Your task to perform on an android device: Search for Mexican restaurants on Maps Image 0: 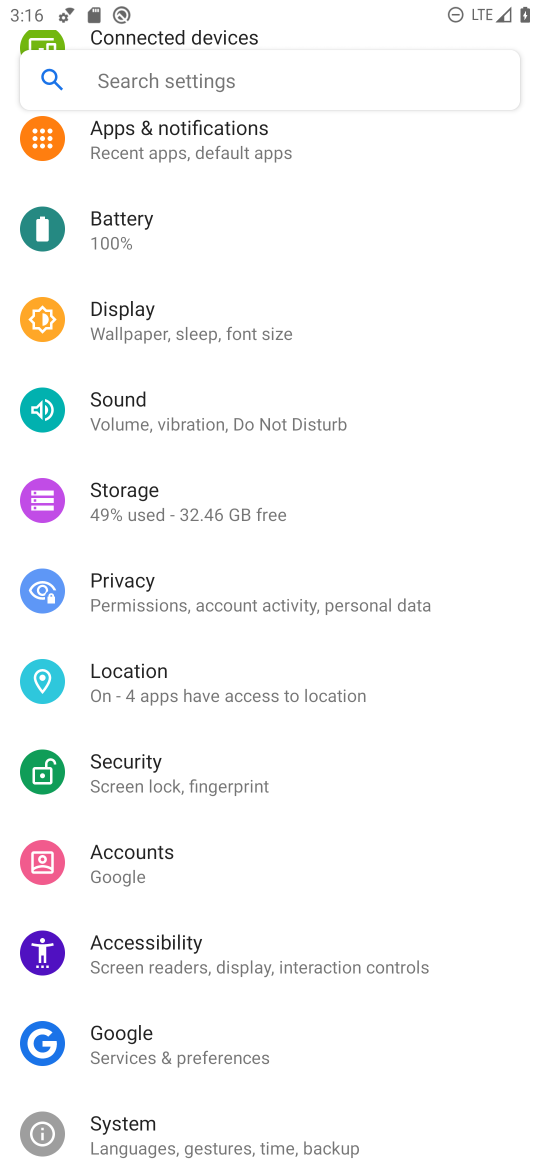
Step 0: press home button
Your task to perform on an android device: Search for Mexican restaurants on Maps Image 1: 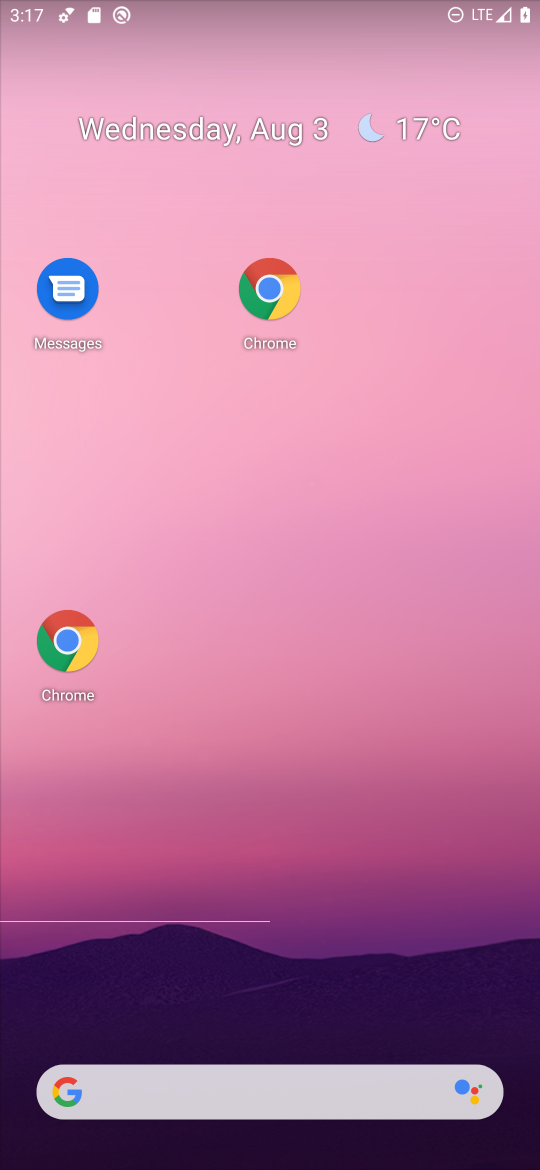
Step 1: drag from (332, 1050) to (316, 252)
Your task to perform on an android device: Search for Mexican restaurants on Maps Image 2: 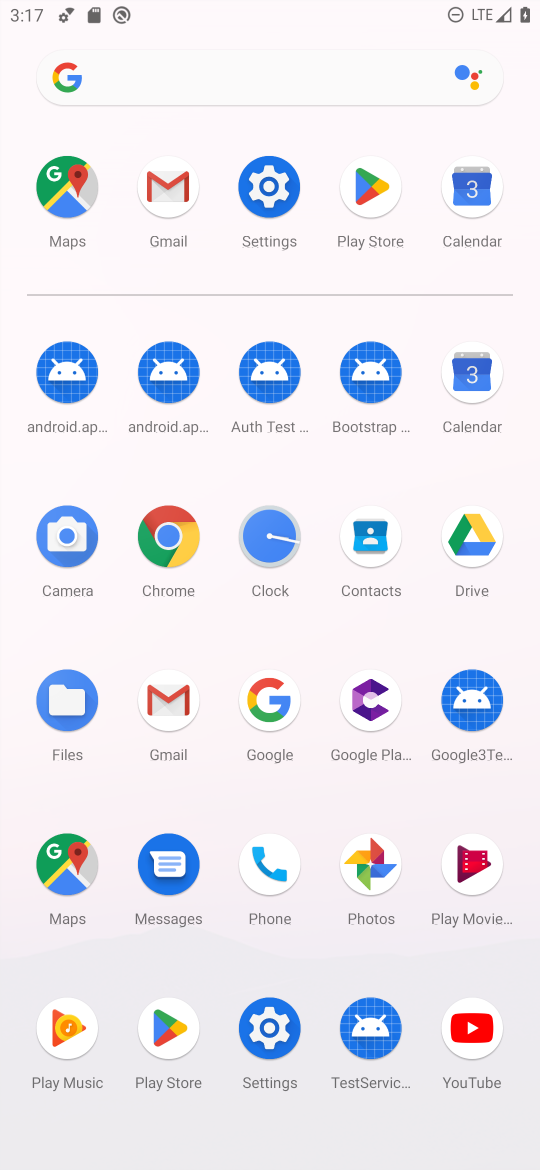
Step 2: click (54, 217)
Your task to perform on an android device: Search for Mexican restaurants on Maps Image 3: 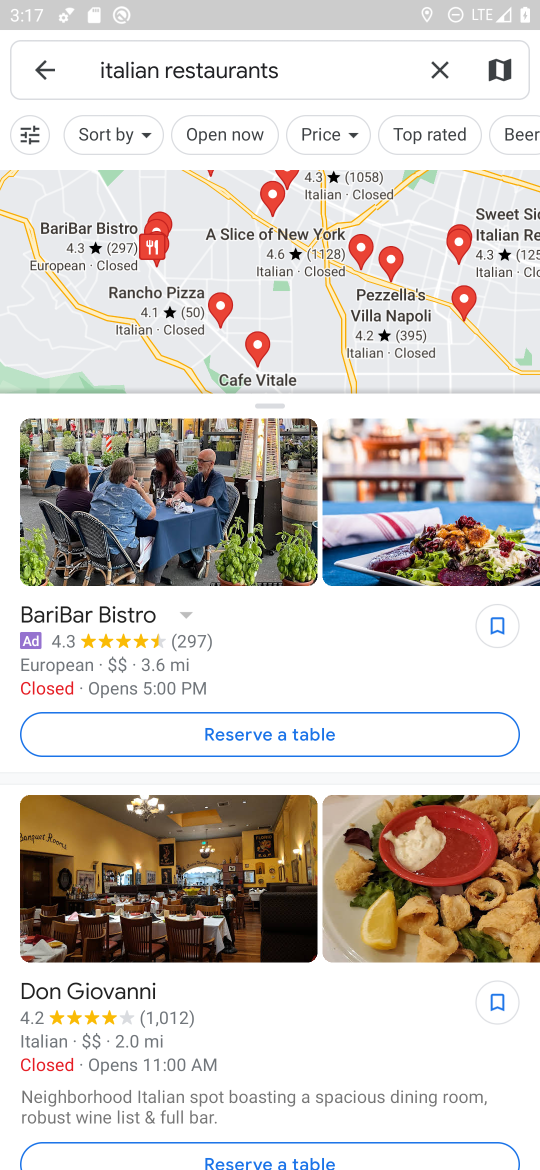
Step 3: click (427, 76)
Your task to perform on an android device: Search for Mexican restaurants on Maps Image 4: 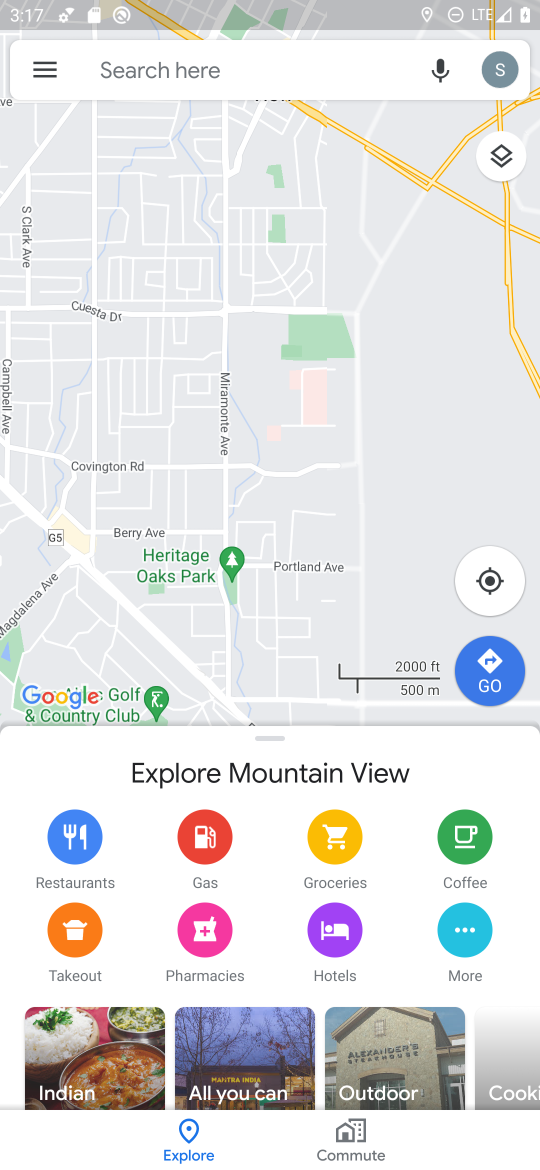
Step 4: click (313, 76)
Your task to perform on an android device: Search for Mexican restaurants on Maps Image 5: 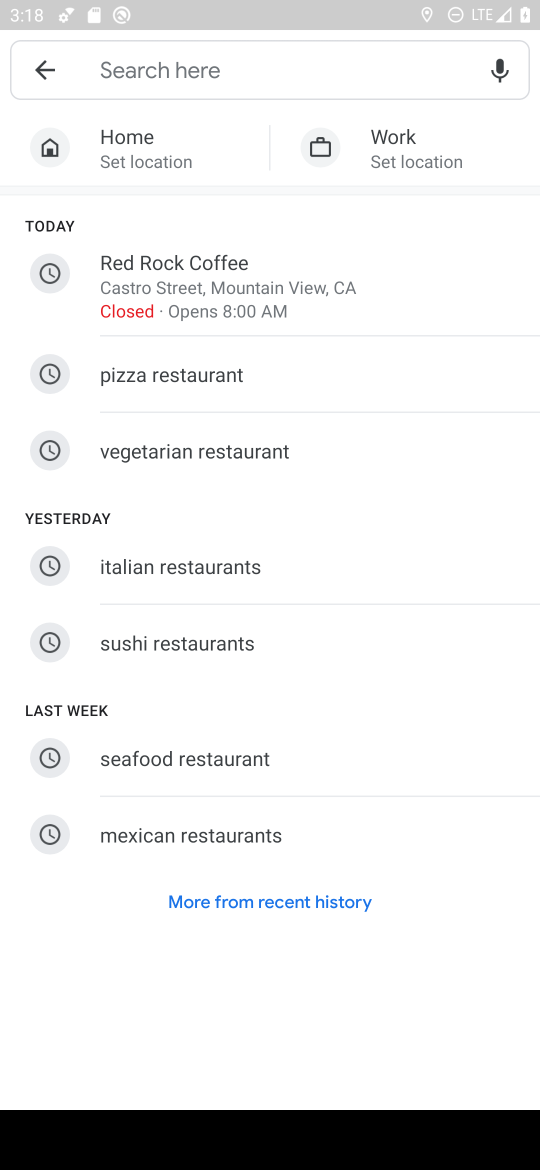
Step 5: type "mexican restaurant"
Your task to perform on an android device: Search for Mexican restaurants on Maps Image 6: 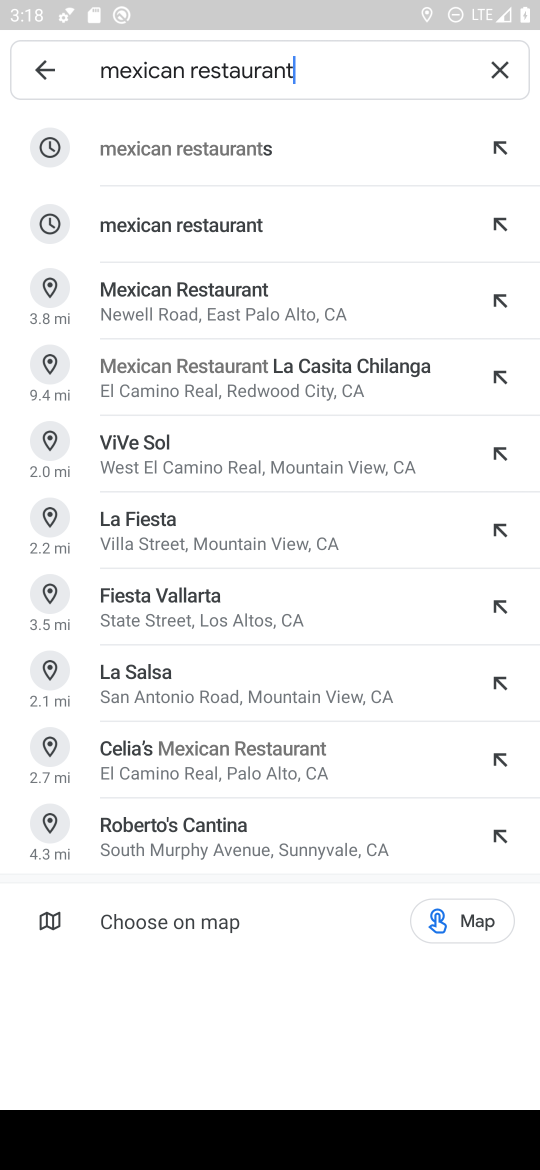
Step 6: click (331, 153)
Your task to perform on an android device: Search for Mexican restaurants on Maps Image 7: 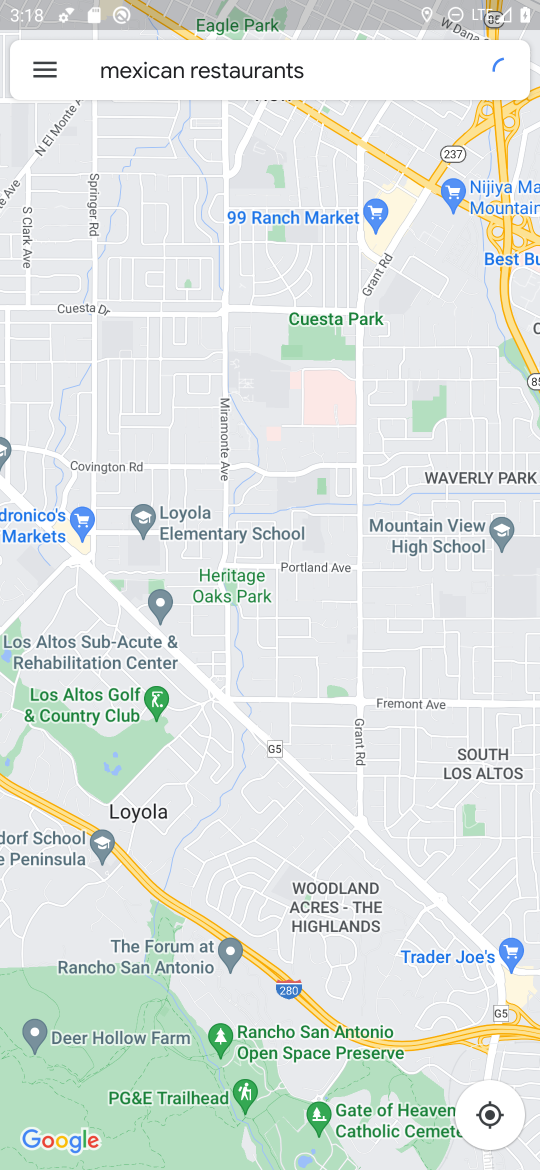
Step 7: task complete